Your task to perform on an android device: turn on notifications settings in the gmail app Image 0: 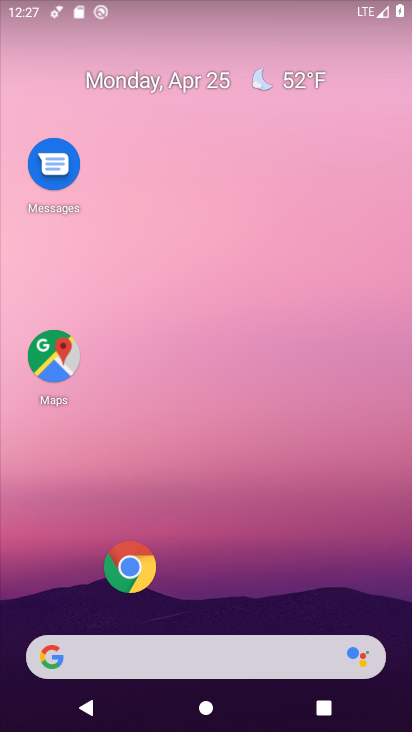
Step 0: click (277, 162)
Your task to perform on an android device: turn on notifications settings in the gmail app Image 1: 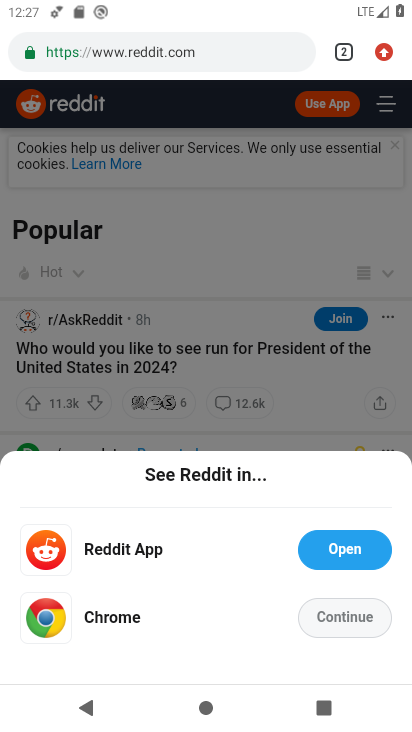
Step 1: press home button
Your task to perform on an android device: turn on notifications settings in the gmail app Image 2: 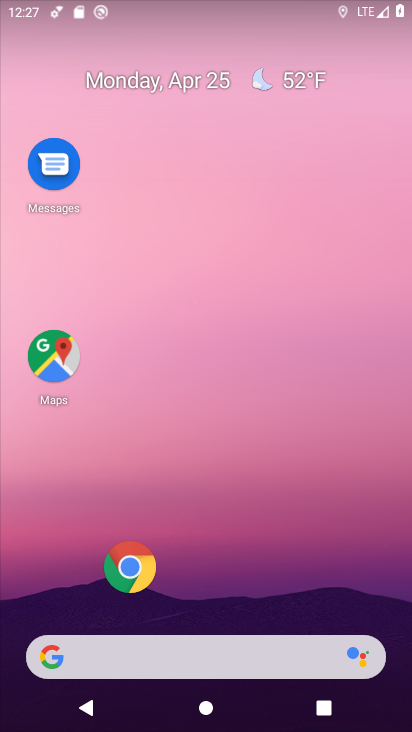
Step 2: drag from (230, 609) to (147, 5)
Your task to perform on an android device: turn on notifications settings in the gmail app Image 3: 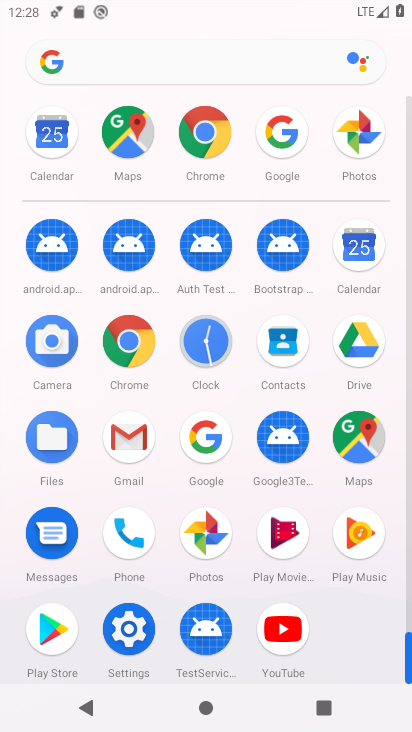
Step 3: click (134, 450)
Your task to perform on an android device: turn on notifications settings in the gmail app Image 4: 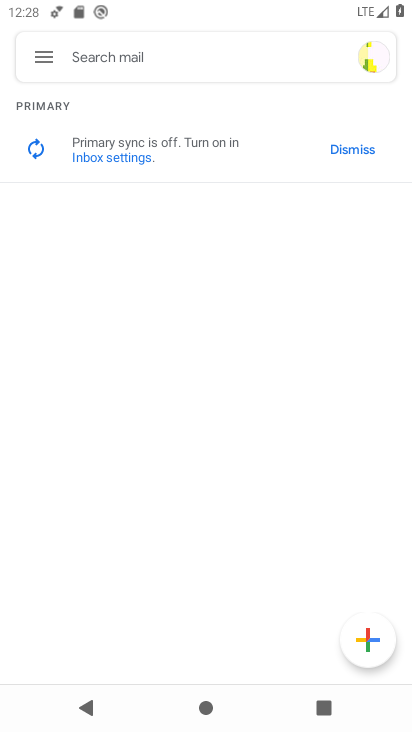
Step 4: click (55, 63)
Your task to perform on an android device: turn on notifications settings in the gmail app Image 5: 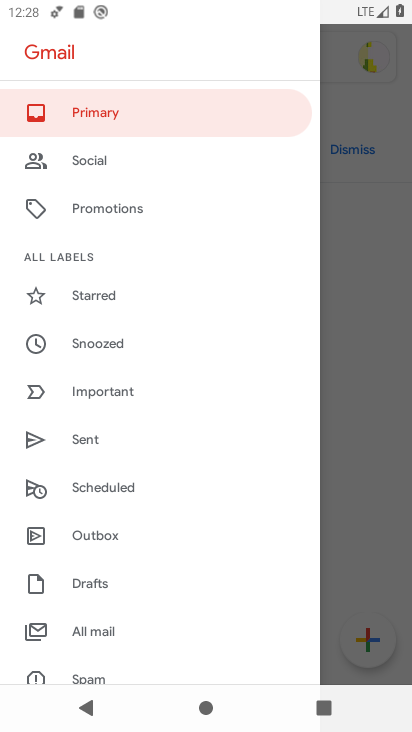
Step 5: drag from (135, 623) to (209, 77)
Your task to perform on an android device: turn on notifications settings in the gmail app Image 6: 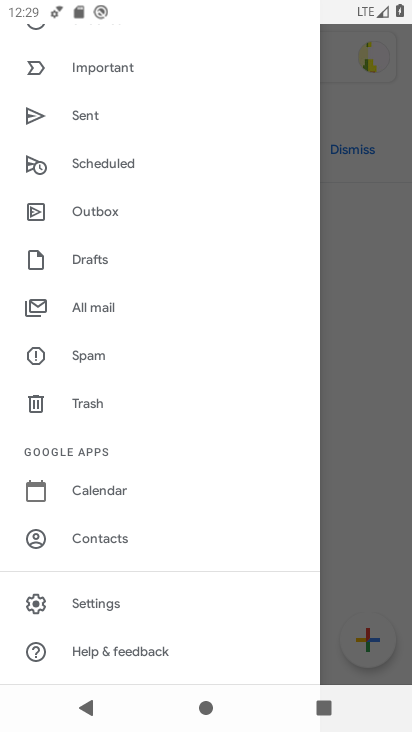
Step 6: click (135, 613)
Your task to perform on an android device: turn on notifications settings in the gmail app Image 7: 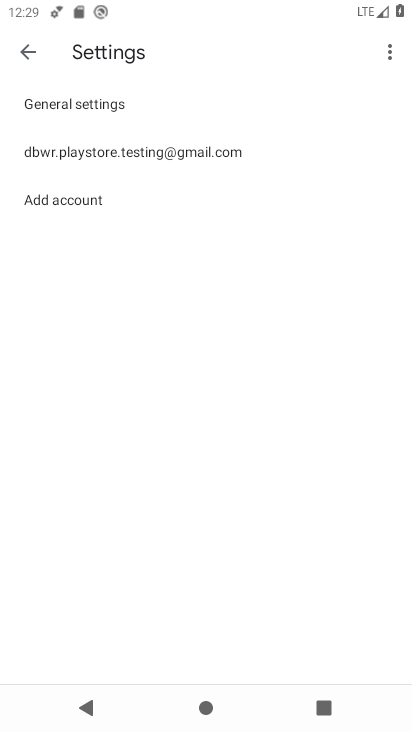
Step 7: click (154, 115)
Your task to perform on an android device: turn on notifications settings in the gmail app Image 8: 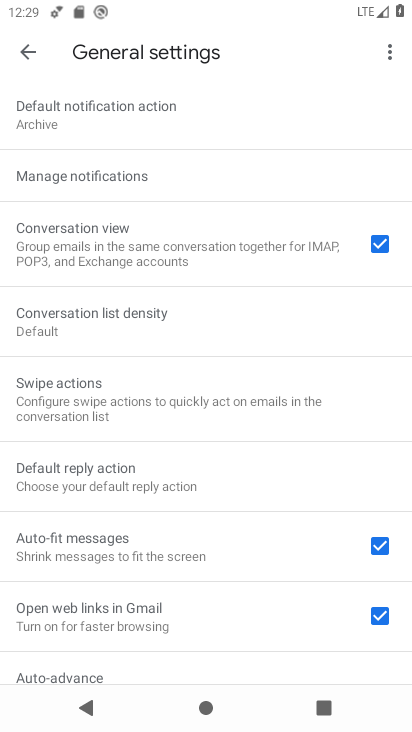
Step 8: click (153, 162)
Your task to perform on an android device: turn on notifications settings in the gmail app Image 9: 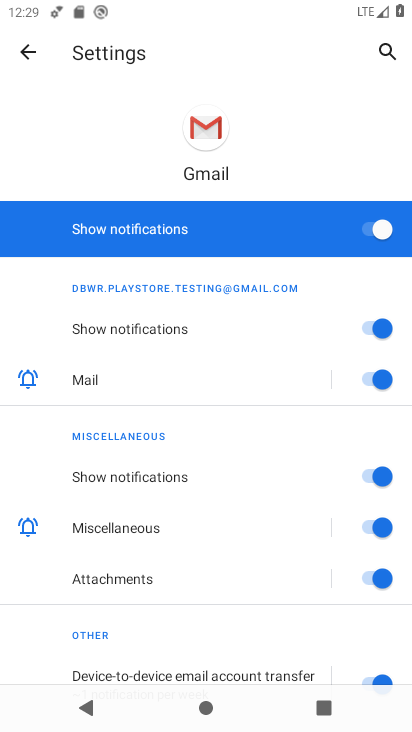
Step 9: task complete